Your task to perform on an android device: snooze an email in the gmail app Image 0: 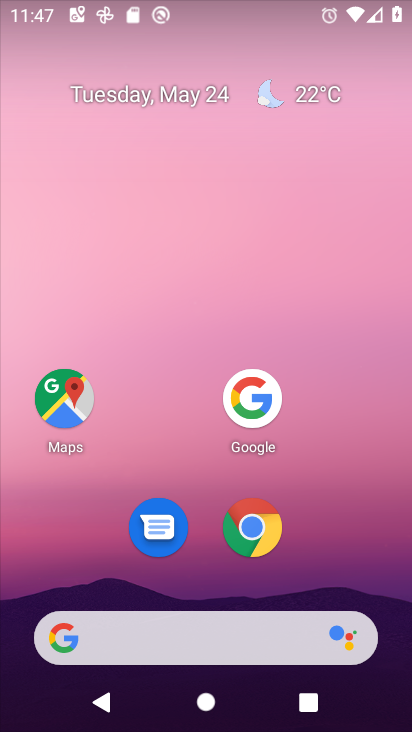
Step 0: drag from (210, 646) to (274, 106)
Your task to perform on an android device: snooze an email in the gmail app Image 1: 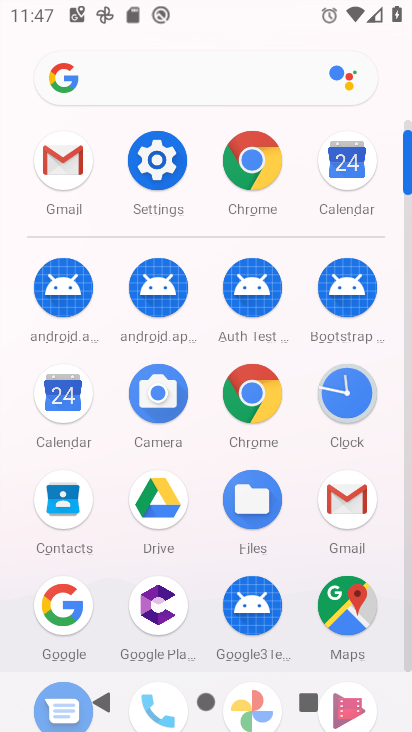
Step 1: click (63, 167)
Your task to perform on an android device: snooze an email in the gmail app Image 2: 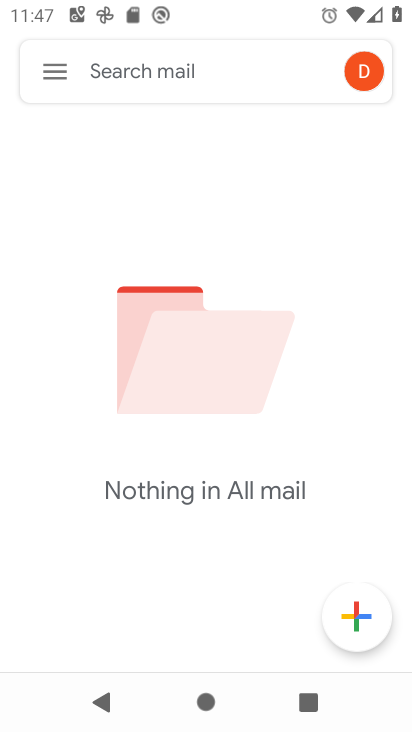
Step 2: task complete